Your task to perform on an android device: What's the weather going to be tomorrow? Image 0: 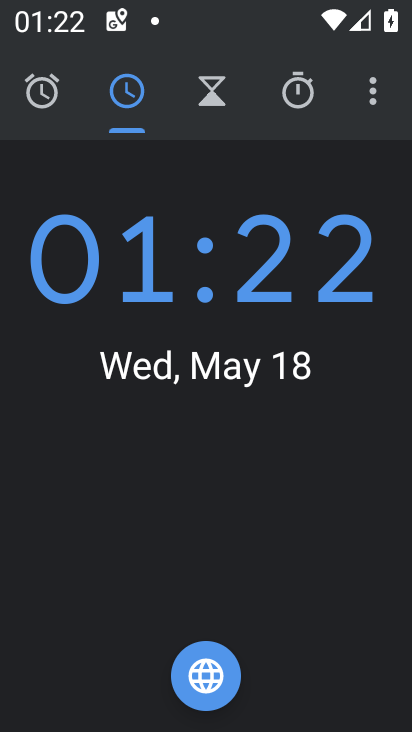
Step 0: press home button
Your task to perform on an android device: What's the weather going to be tomorrow? Image 1: 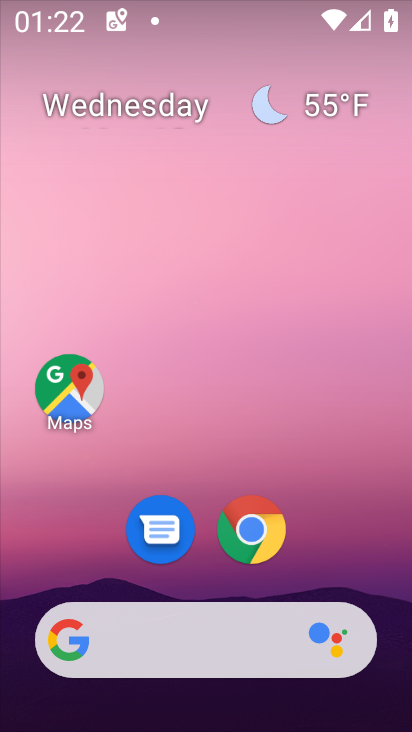
Step 1: click (263, 101)
Your task to perform on an android device: What's the weather going to be tomorrow? Image 2: 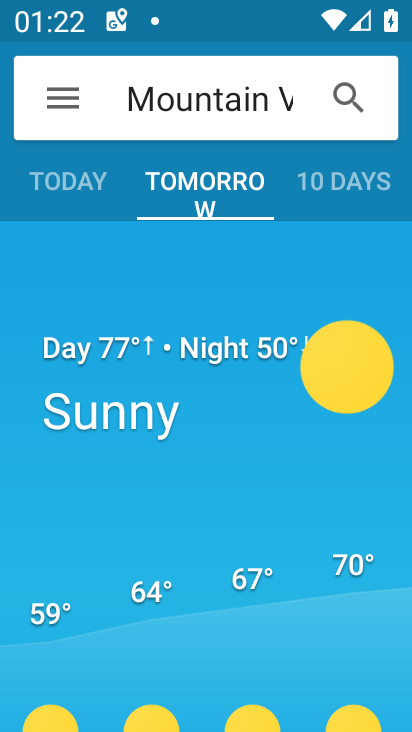
Step 2: task complete